Your task to perform on an android device: turn on translation in the chrome app Image 0: 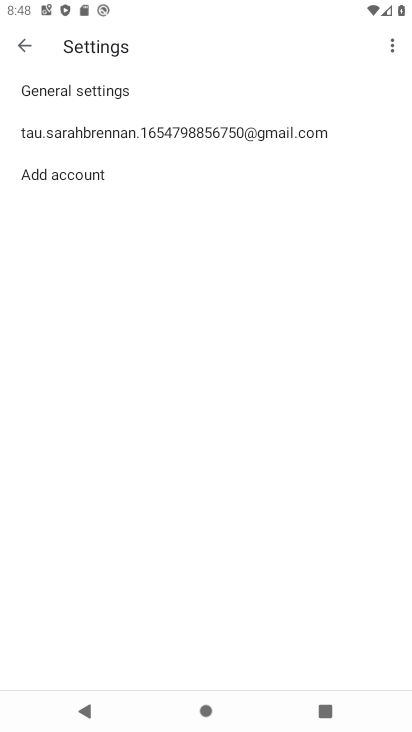
Step 0: drag from (160, 651) to (162, 218)
Your task to perform on an android device: turn on translation in the chrome app Image 1: 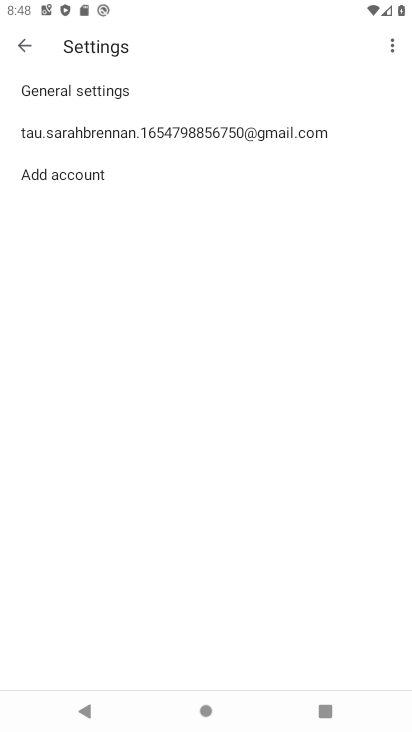
Step 1: press home button
Your task to perform on an android device: turn on translation in the chrome app Image 2: 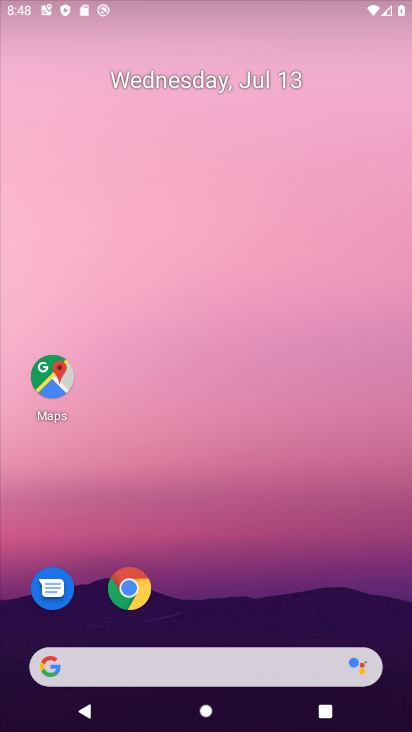
Step 2: drag from (210, 655) to (214, 248)
Your task to perform on an android device: turn on translation in the chrome app Image 3: 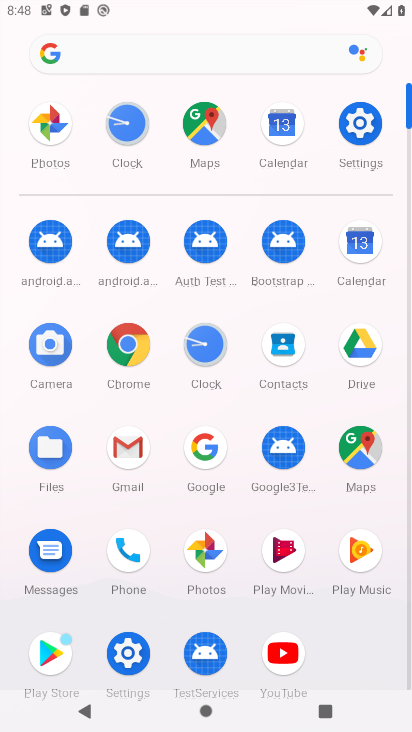
Step 3: click (134, 343)
Your task to perform on an android device: turn on translation in the chrome app Image 4: 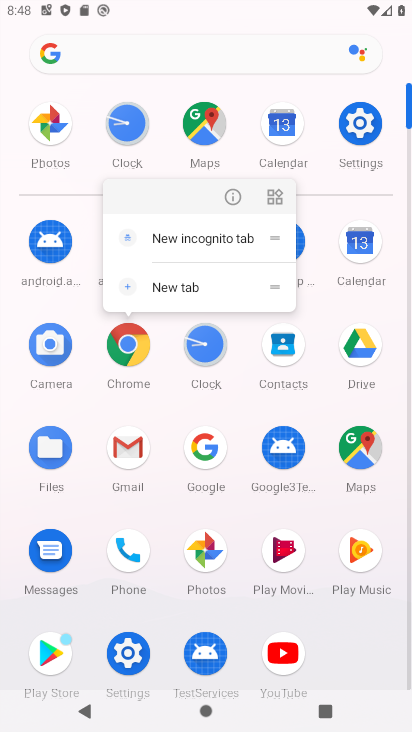
Step 4: click (134, 343)
Your task to perform on an android device: turn on translation in the chrome app Image 5: 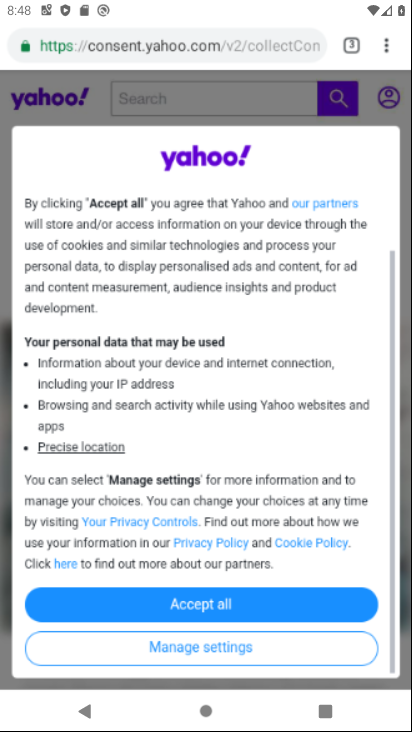
Step 5: click (397, 33)
Your task to perform on an android device: turn on translation in the chrome app Image 6: 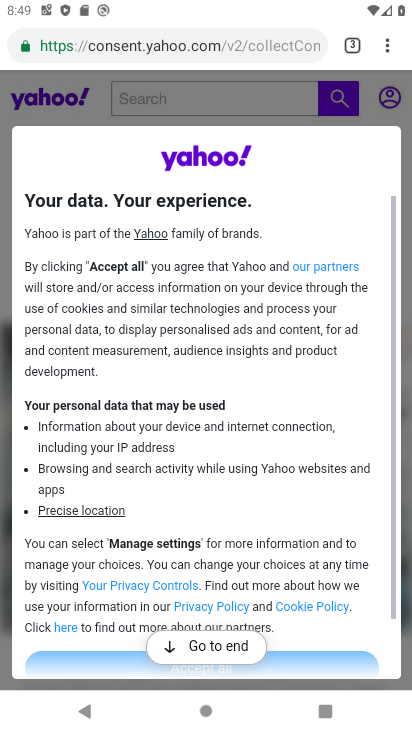
Step 6: click (397, 40)
Your task to perform on an android device: turn on translation in the chrome app Image 7: 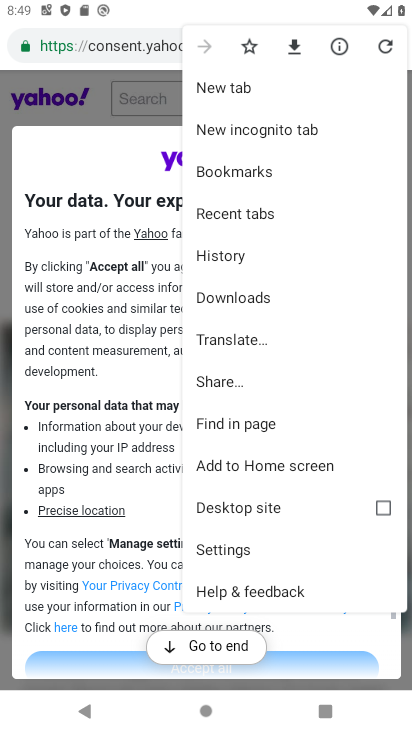
Step 7: click (227, 549)
Your task to perform on an android device: turn on translation in the chrome app Image 8: 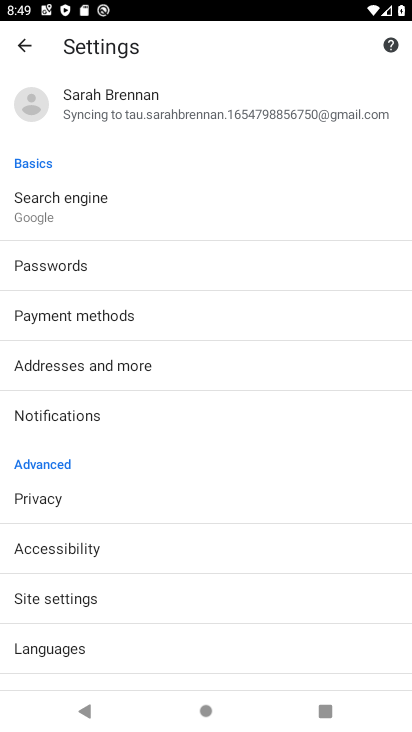
Step 8: drag from (195, 590) to (210, 226)
Your task to perform on an android device: turn on translation in the chrome app Image 9: 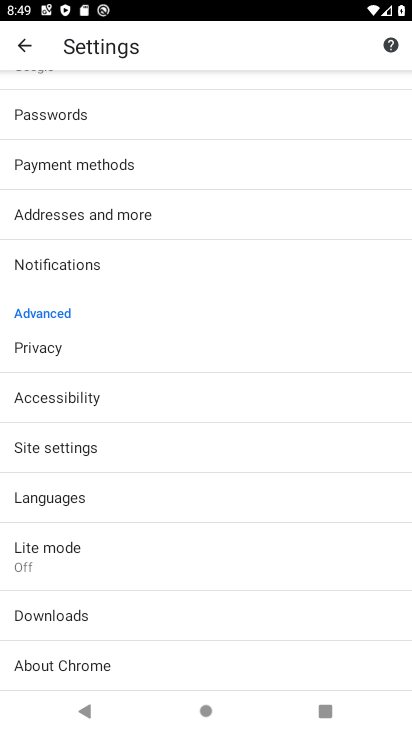
Step 9: click (116, 495)
Your task to perform on an android device: turn on translation in the chrome app Image 10: 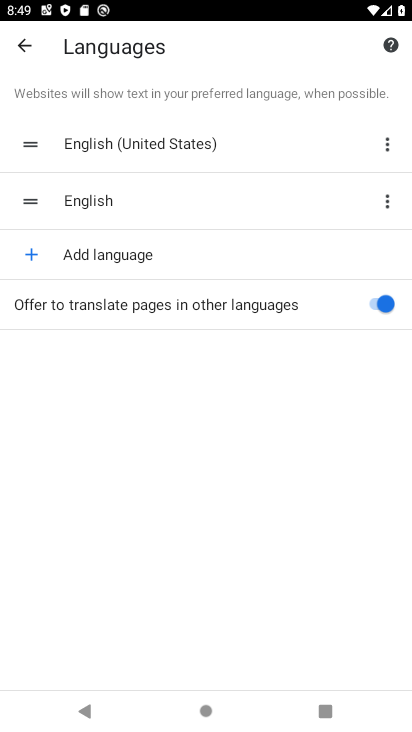
Step 10: click (390, 303)
Your task to perform on an android device: turn on translation in the chrome app Image 11: 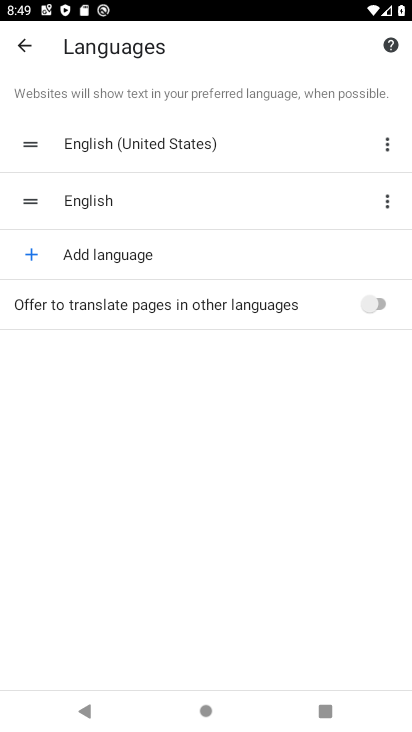
Step 11: task complete